Your task to perform on an android device: check android version Image 0: 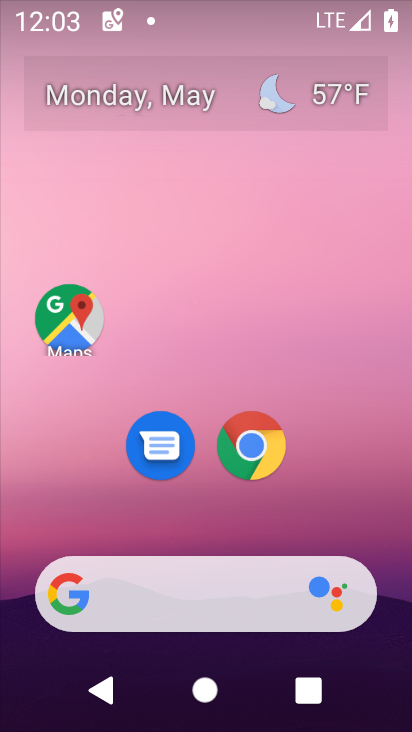
Step 0: drag from (307, 0) to (315, 562)
Your task to perform on an android device: check android version Image 1: 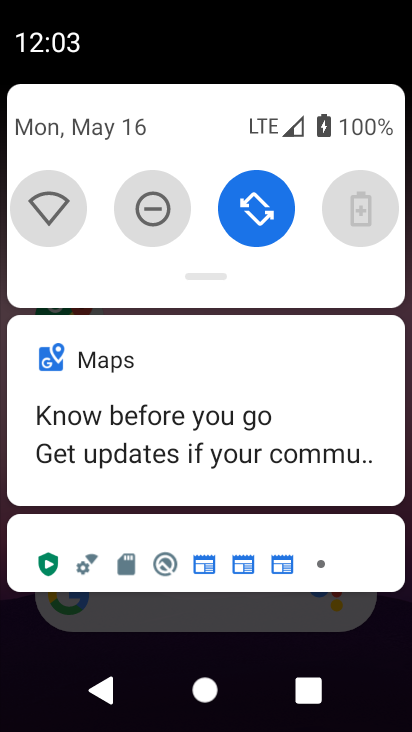
Step 1: click (53, 215)
Your task to perform on an android device: check android version Image 2: 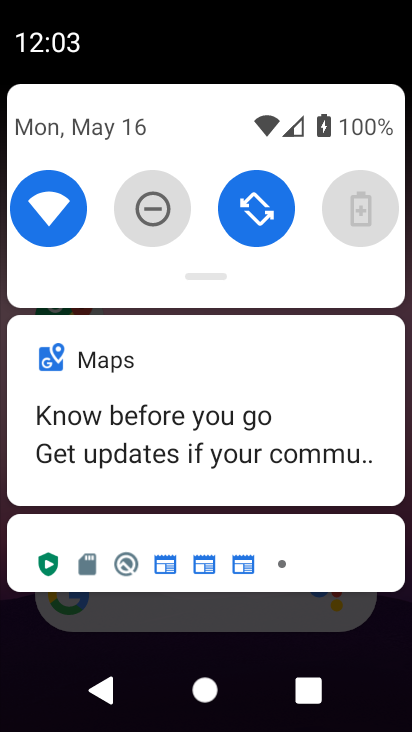
Step 2: drag from (246, 676) to (327, 254)
Your task to perform on an android device: check android version Image 3: 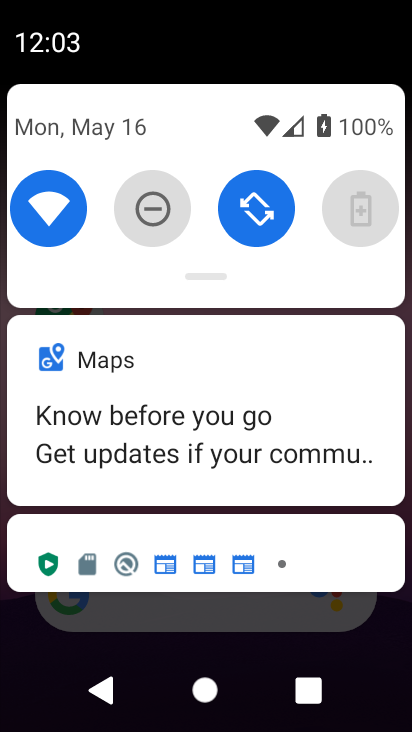
Step 3: drag from (260, 616) to (332, 132)
Your task to perform on an android device: check android version Image 4: 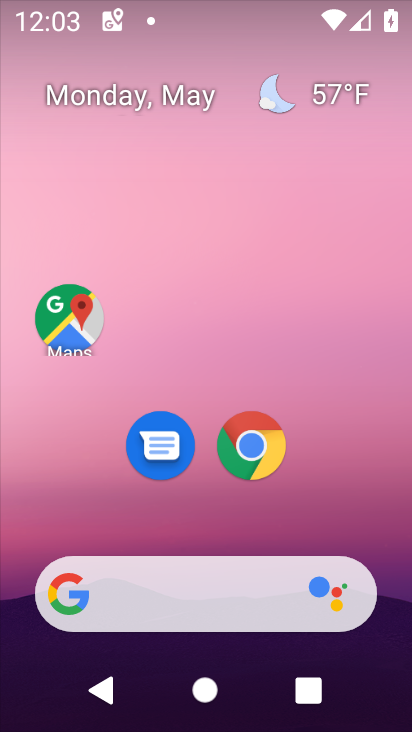
Step 4: drag from (323, 484) to (349, 88)
Your task to perform on an android device: check android version Image 5: 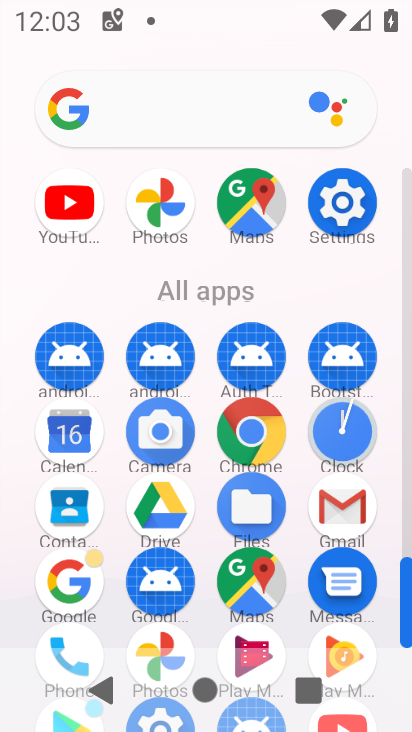
Step 5: click (328, 203)
Your task to perform on an android device: check android version Image 6: 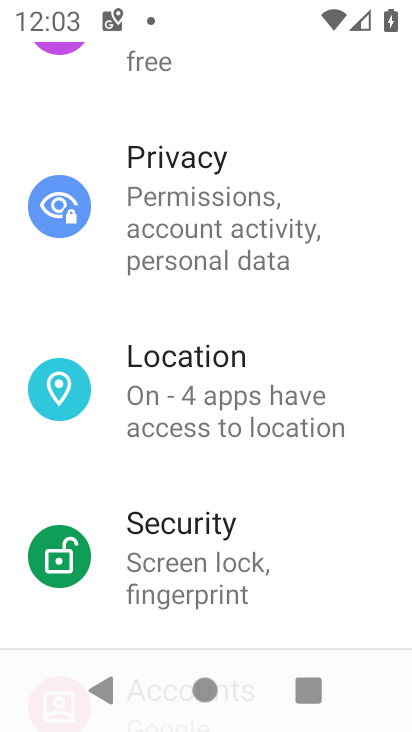
Step 6: drag from (275, 414) to (318, 643)
Your task to perform on an android device: check android version Image 7: 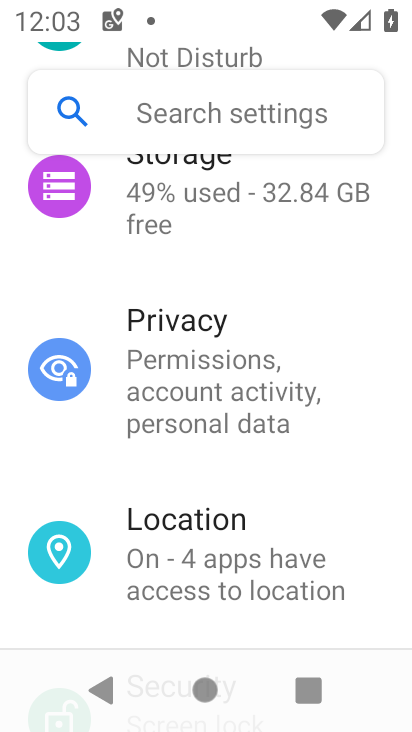
Step 7: drag from (308, 254) to (359, 583)
Your task to perform on an android device: check android version Image 8: 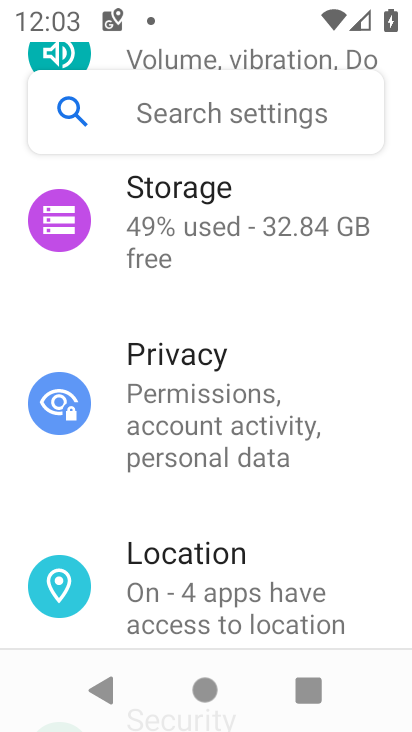
Step 8: drag from (365, 523) to (372, 632)
Your task to perform on an android device: check android version Image 9: 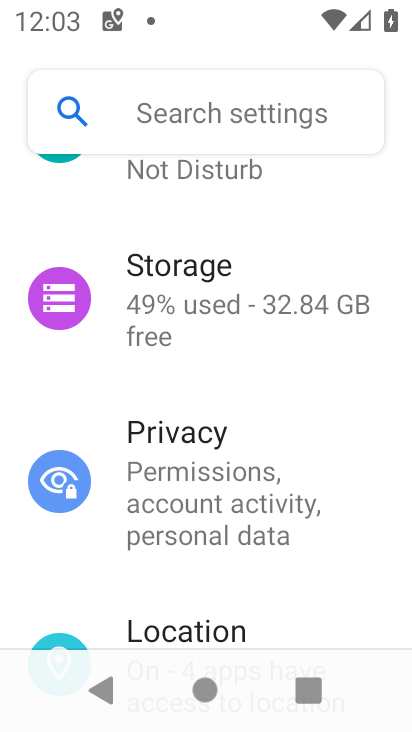
Step 9: drag from (333, 270) to (342, 539)
Your task to perform on an android device: check android version Image 10: 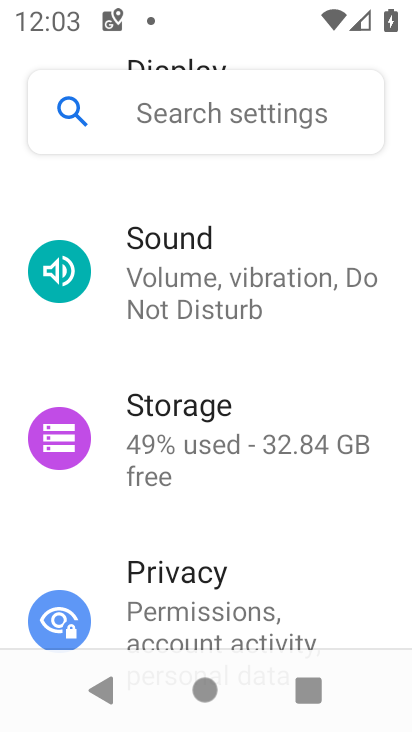
Step 10: drag from (304, 465) to (334, 559)
Your task to perform on an android device: check android version Image 11: 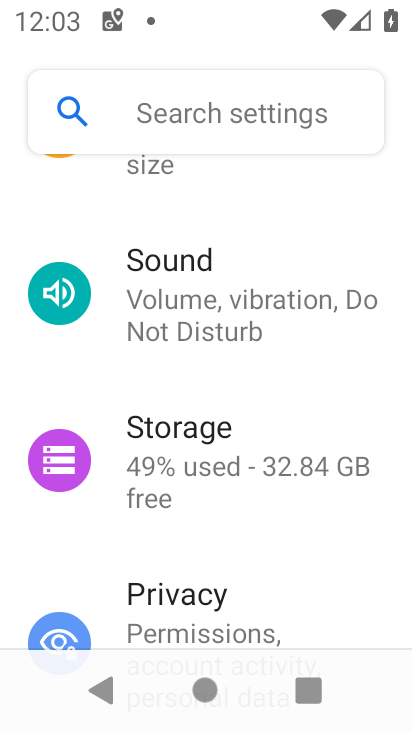
Step 11: drag from (332, 346) to (343, 475)
Your task to perform on an android device: check android version Image 12: 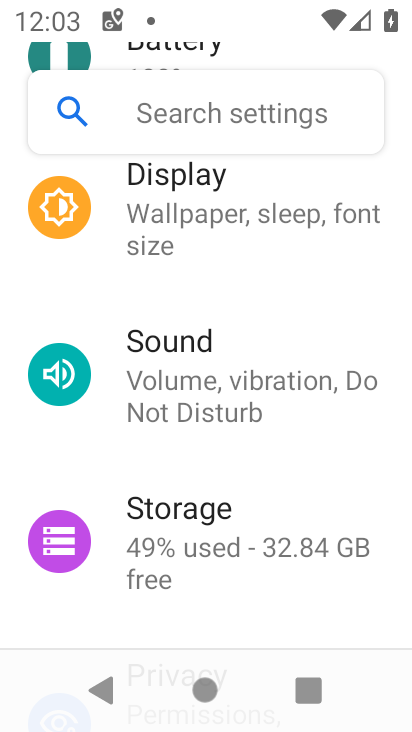
Step 12: drag from (269, 481) to (257, 151)
Your task to perform on an android device: check android version Image 13: 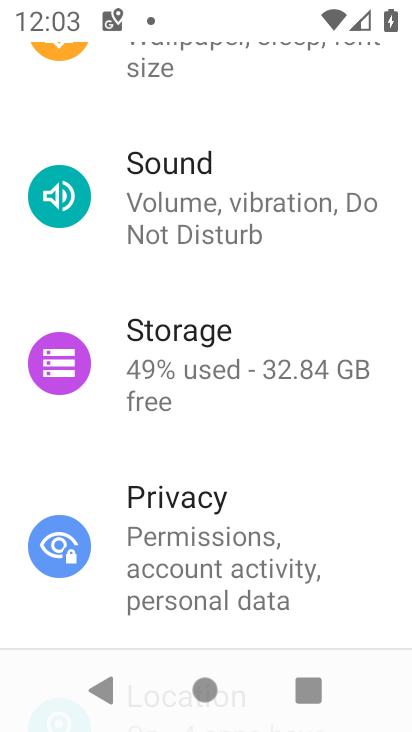
Step 13: drag from (360, 587) to (320, 99)
Your task to perform on an android device: check android version Image 14: 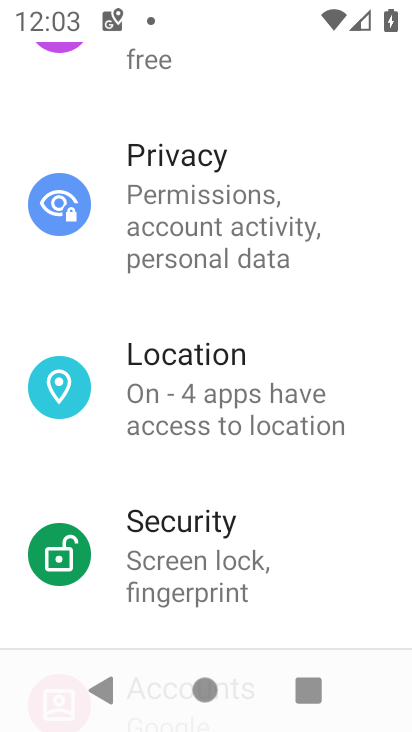
Step 14: drag from (240, 588) to (248, 97)
Your task to perform on an android device: check android version Image 15: 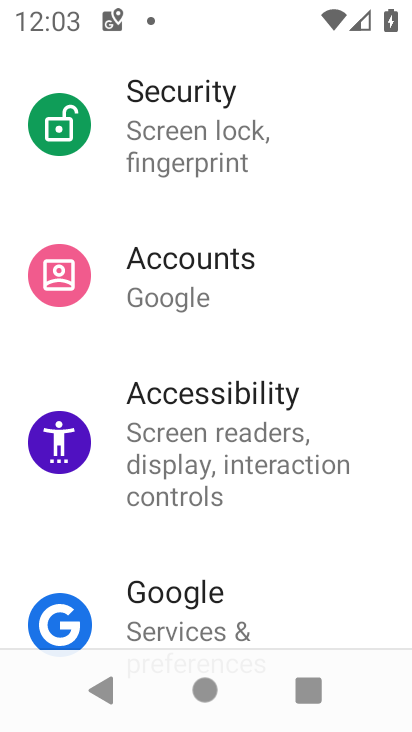
Step 15: drag from (316, 548) to (321, 65)
Your task to perform on an android device: check android version Image 16: 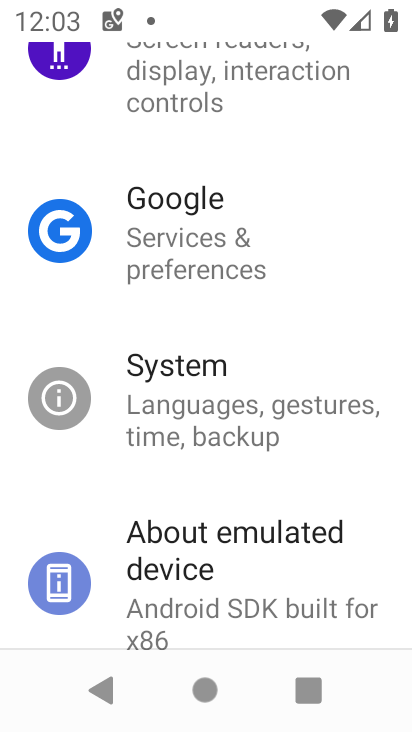
Step 16: drag from (349, 547) to (345, 130)
Your task to perform on an android device: check android version Image 17: 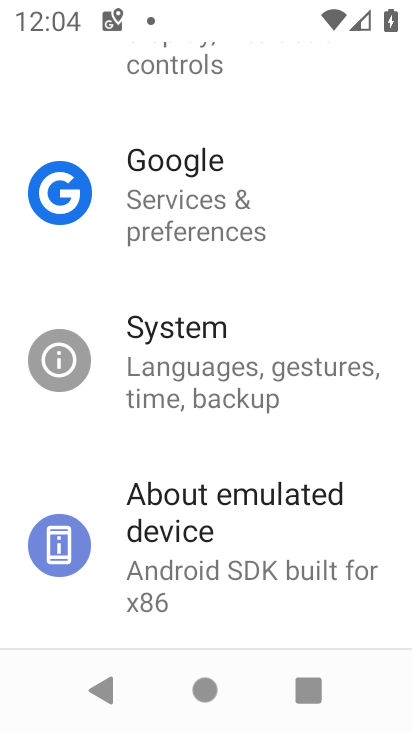
Step 17: drag from (304, 579) to (311, 197)
Your task to perform on an android device: check android version Image 18: 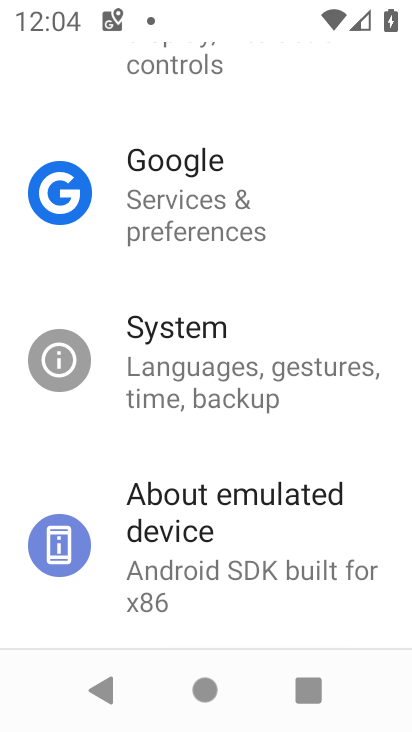
Step 18: drag from (240, 675) to (260, 290)
Your task to perform on an android device: check android version Image 19: 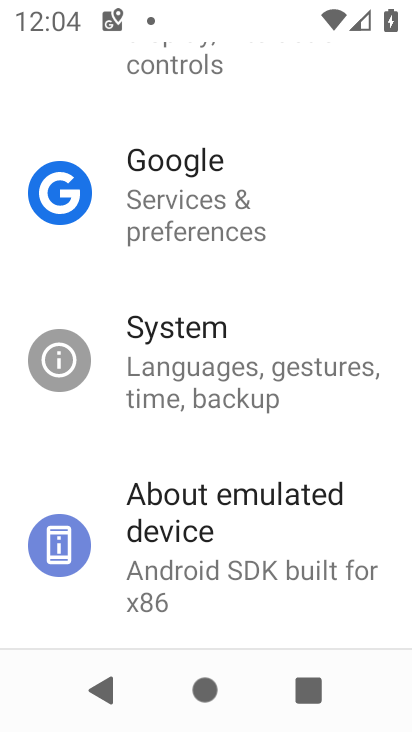
Step 19: click (223, 520)
Your task to perform on an android device: check android version Image 20: 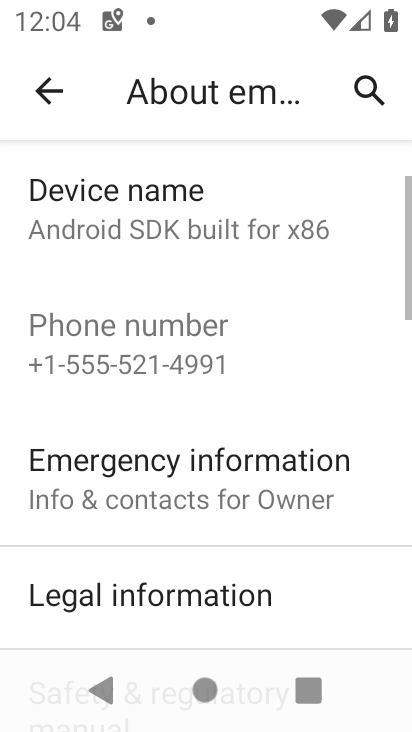
Step 20: drag from (300, 577) to (302, 191)
Your task to perform on an android device: check android version Image 21: 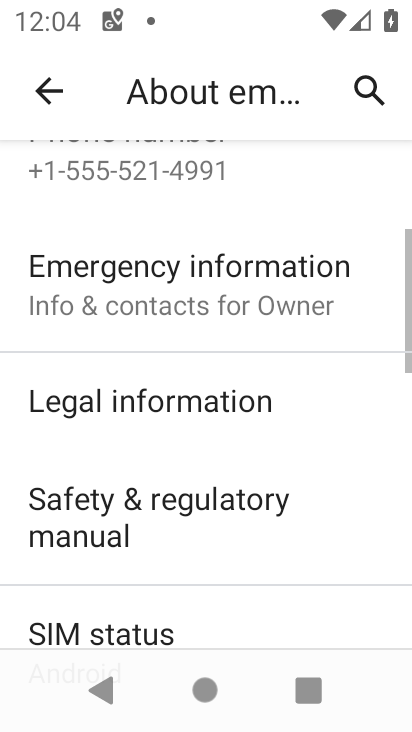
Step 21: drag from (299, 520) to (309, 169)
Your task to perform on an android device: check android version Image 22: 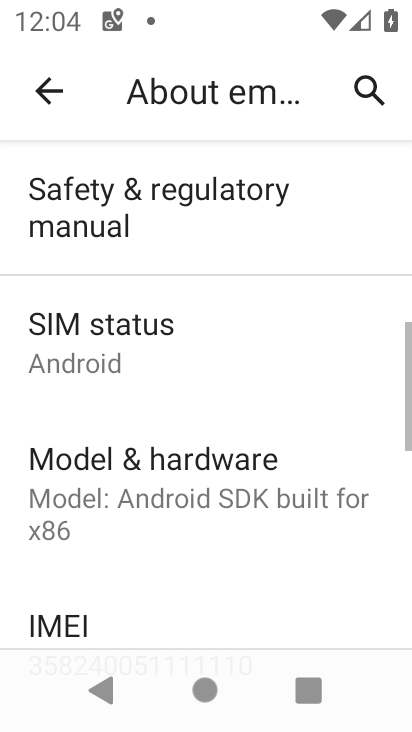
Step 22: drag from (245, 511) to (267, 180)
Your task to perform on an android device: check android version Image 23: 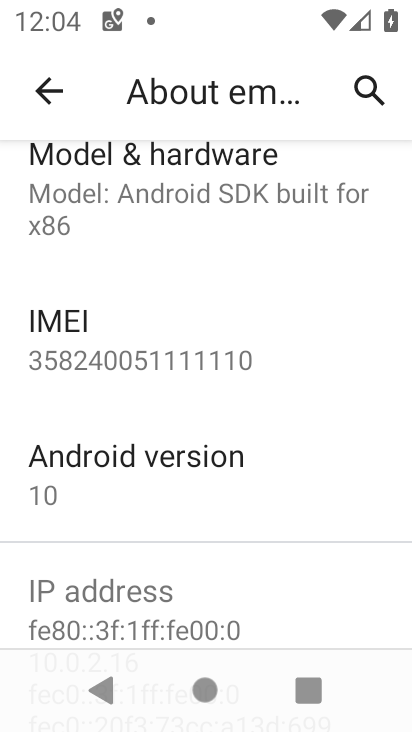
Step 23: drag from (260, 529) to (262, 403)
Your task to perform on an android device: check android version Image 24: 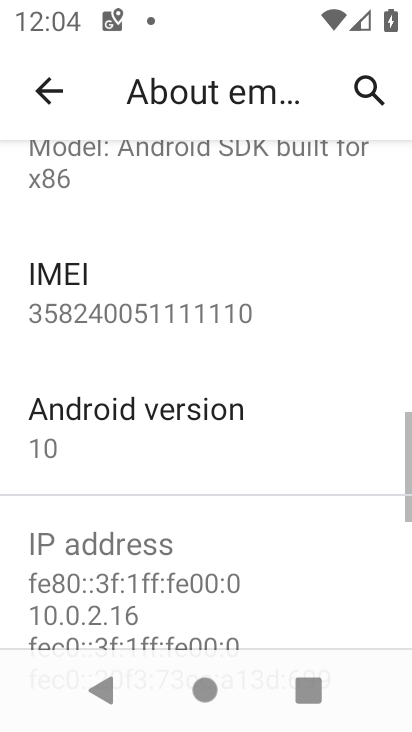
Step 24: click (240, 414)
Your task to perform on an android device: check android version Image 25: 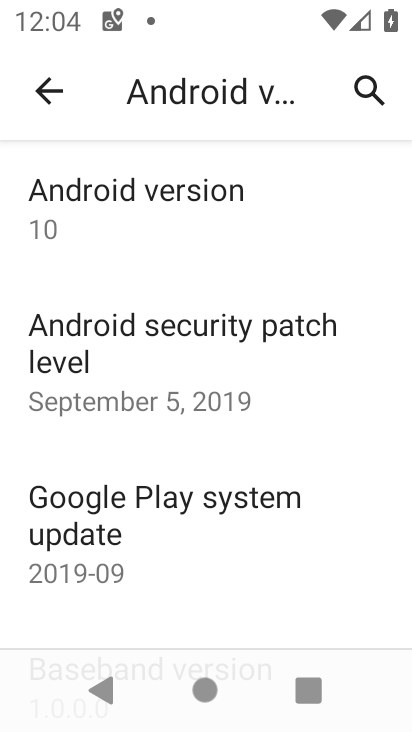
Step 25: click (169, 188)
Your task to perform on an android device: check android version Image 26: 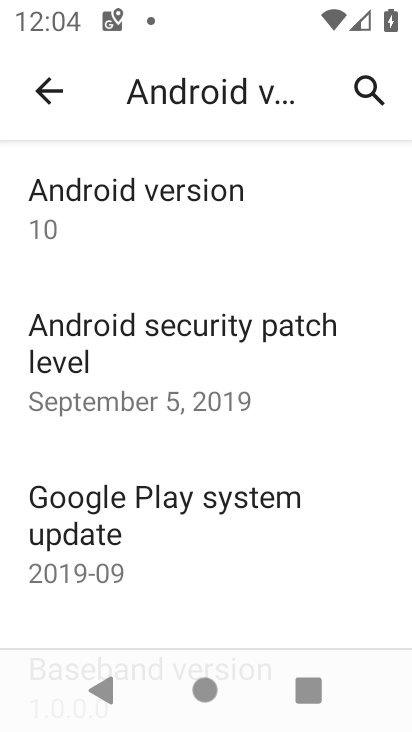
Step 26: task complete